Your task to perform on an android device: Search for dell xps on amazon, select the first entry, add it to the cart, then select checkout. Image 0: 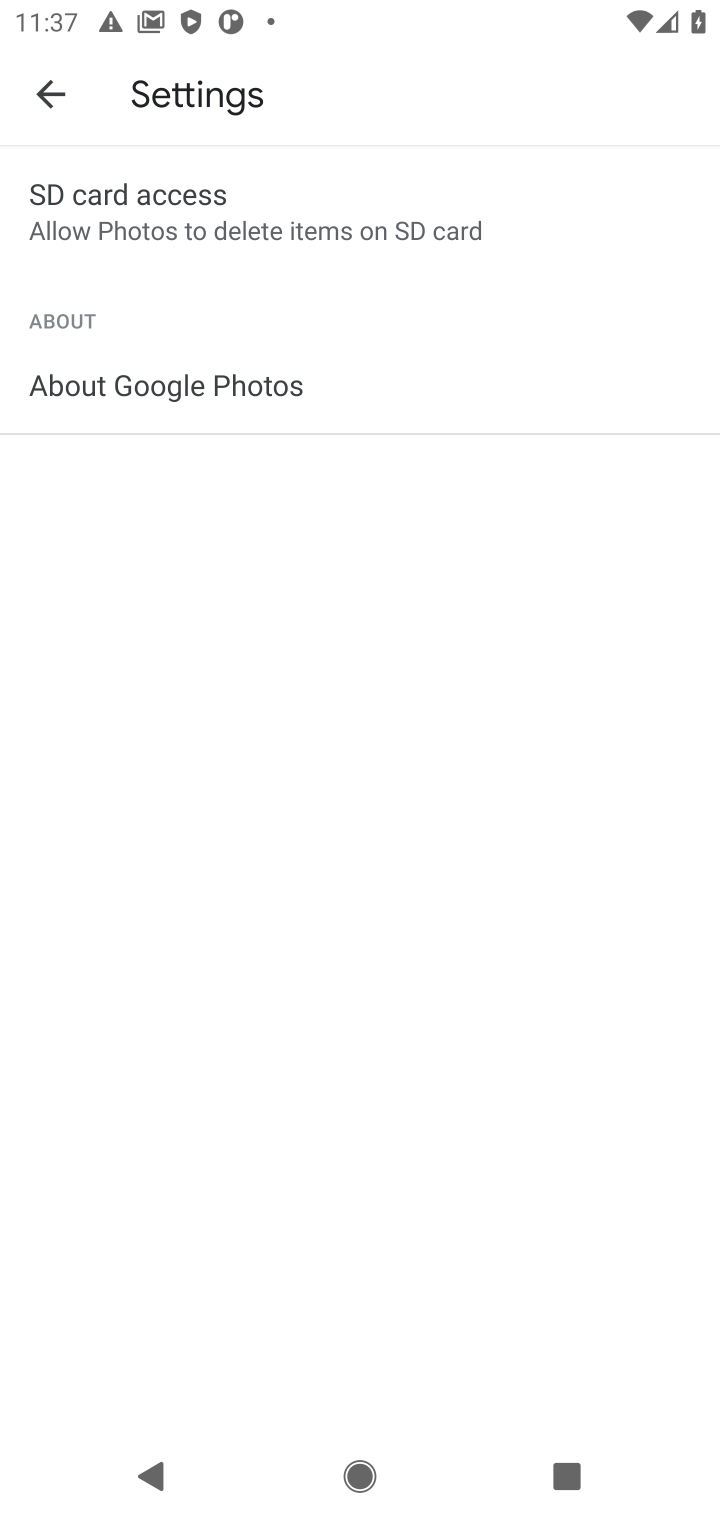
Step 0: press home button
Your task to perform on an android device: Search for dell xps on amazon, select the first entry, add it to the cart, then select checkout. Image 1: 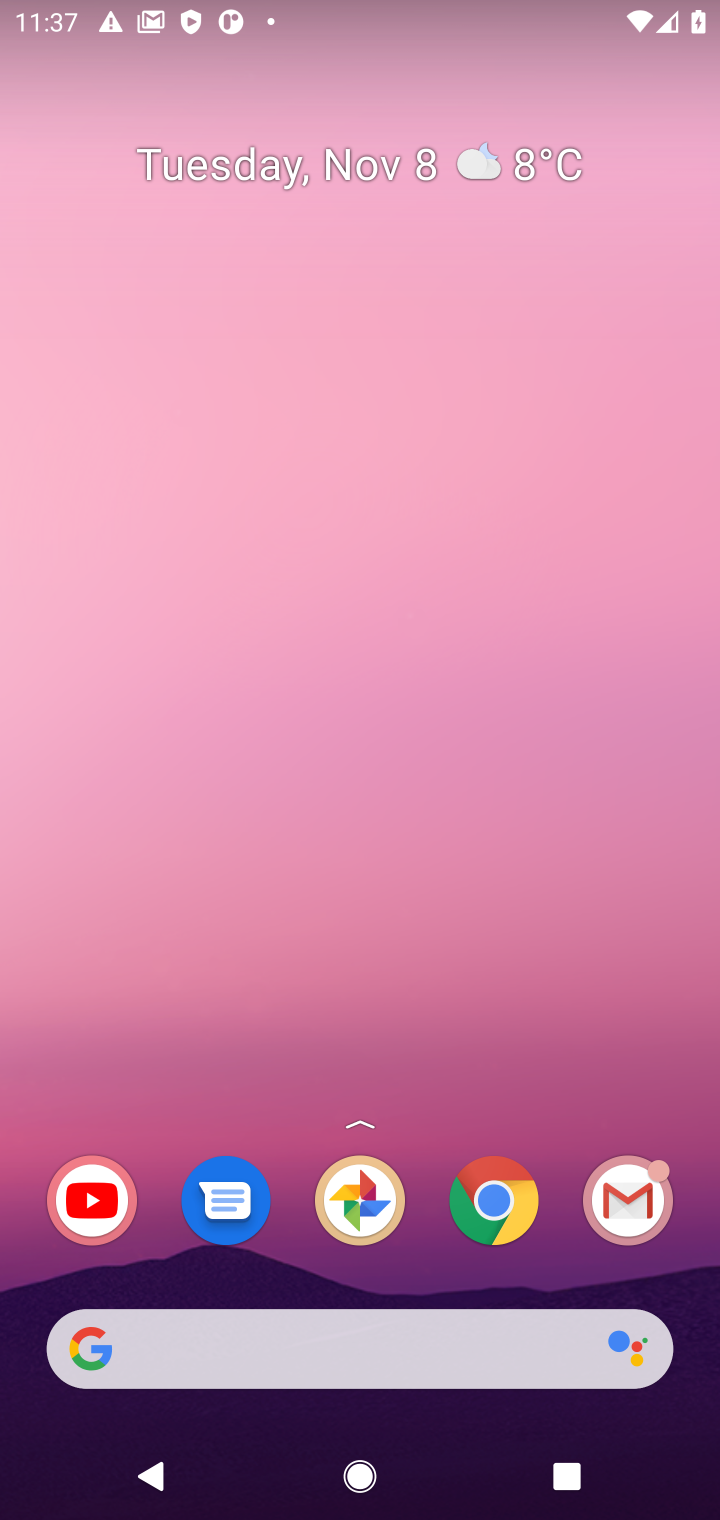
Step 1: click (323, 1355)
Your task to perform on an android device: Search for dell xps on amazon, select the first entry, add it to the cart, then select checkout. Image 2: 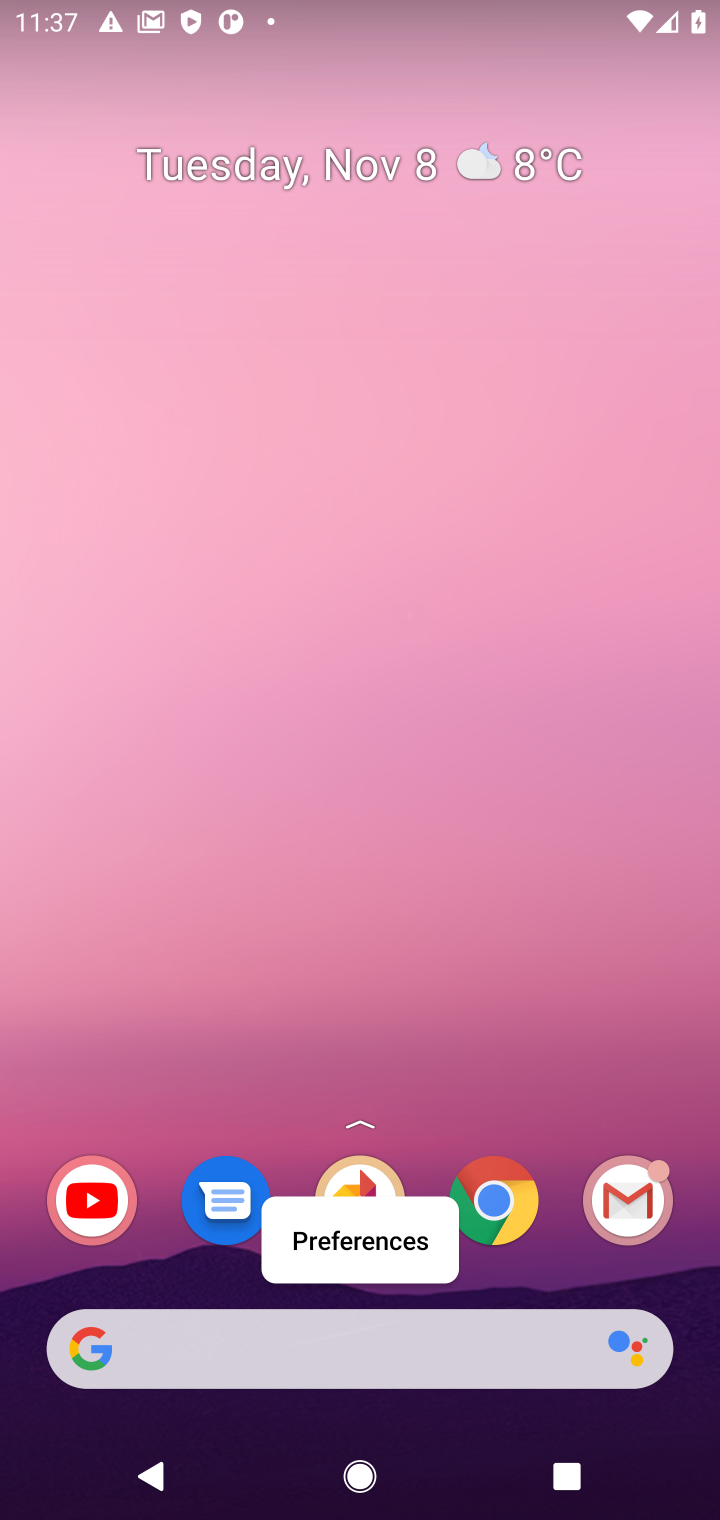
Step 2: task complete